Your task to perform on an android device: Show the shopping cart on bestbuy.com. Add dell xps to the cart on bestbuy.com Image 0: 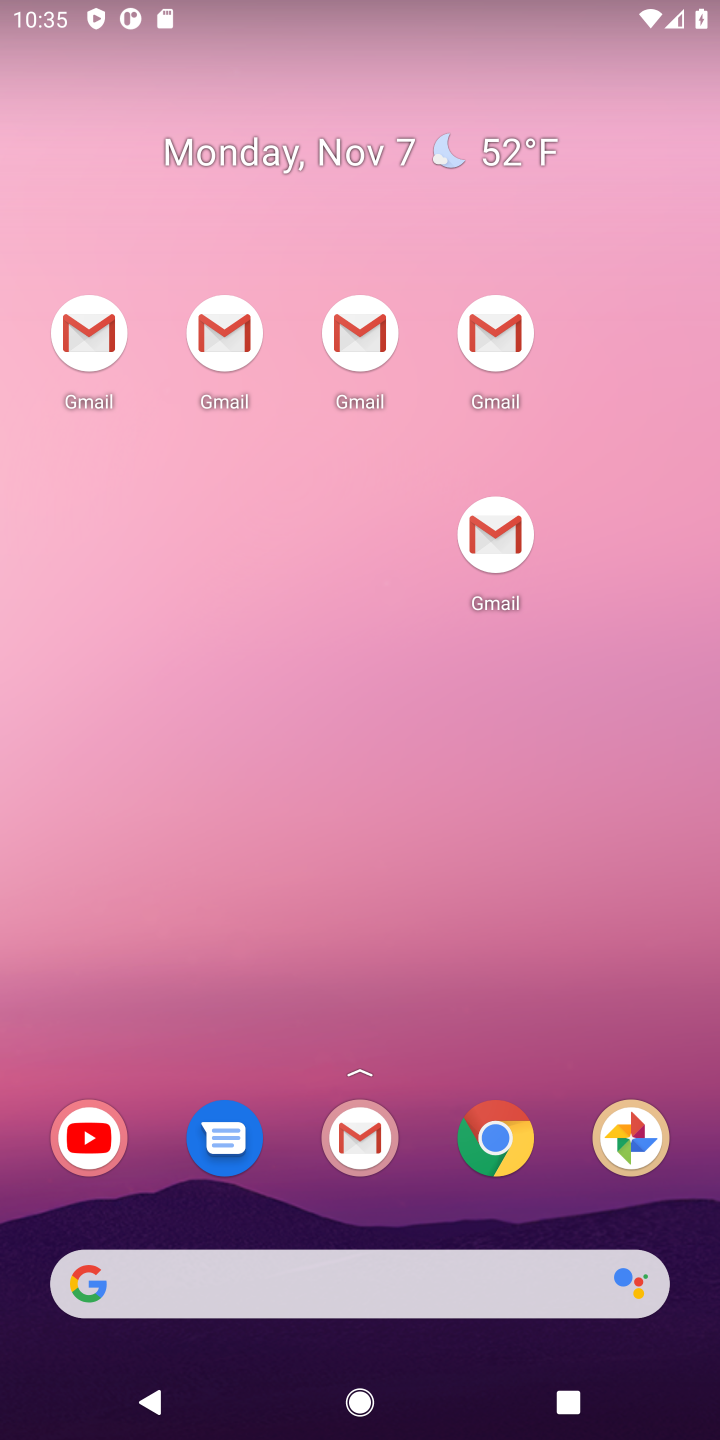
Step 0: drag from (337, 1074) to (330, 220)
Your task to perform on an android device: Show the shopping cart on bestbuy.com. Add dell xps to the cart on bestbuy.com Image 1: 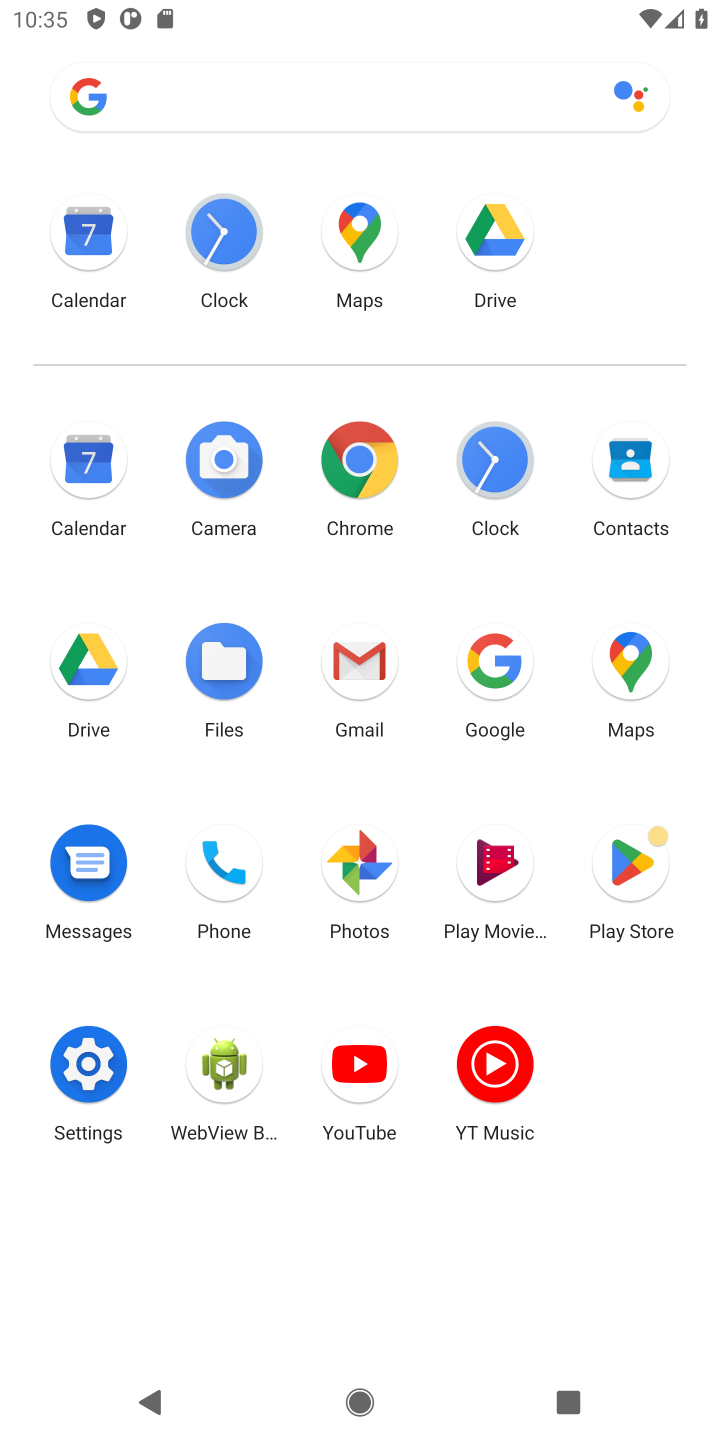
Step 1: click (498, 676)
Your task to perform on an android device: Show the shopping cart on bestbuy.com. Add dell xps to the cart on bestbuy.com Image 2: 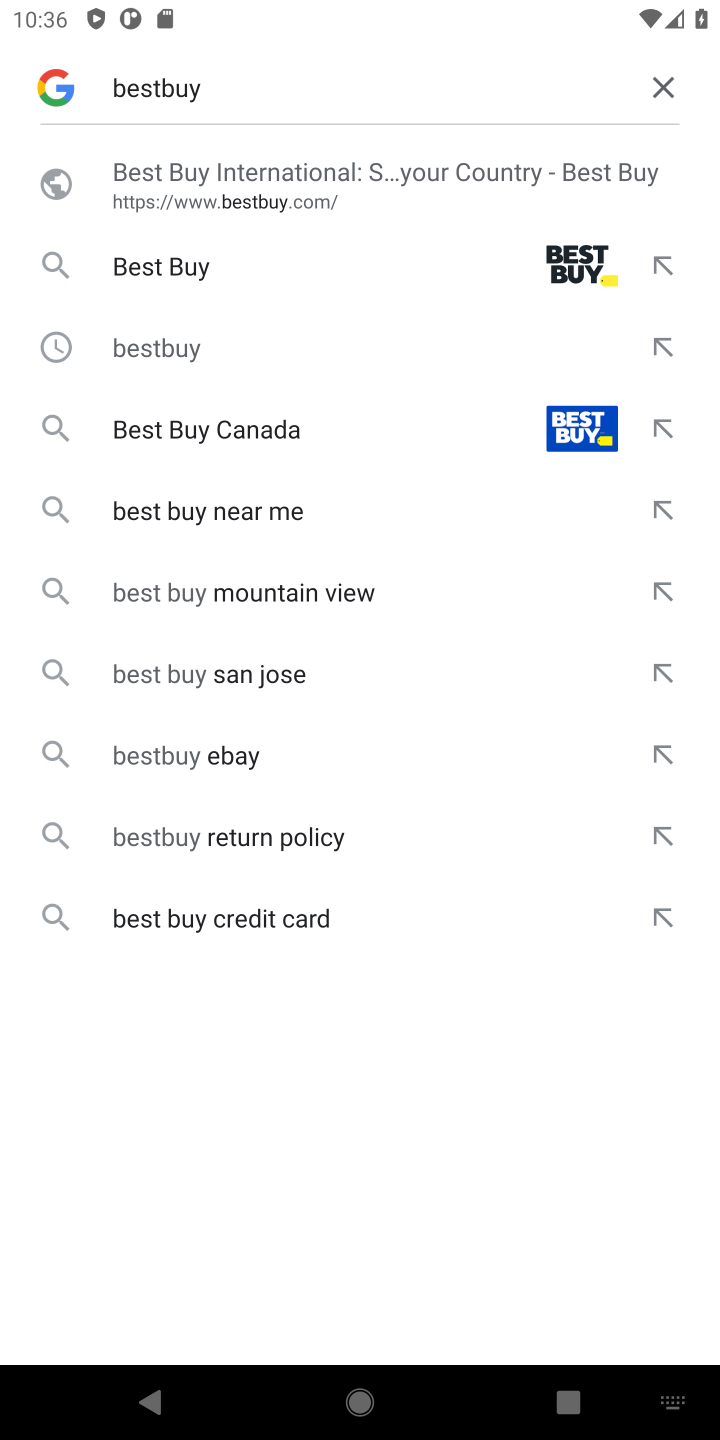
Step 2: click (380, 211)
Your task to perform on an android device: Show the shopping cart on bestbuy.com. Add dell xps to the cart on bestbuy.com Image 3: 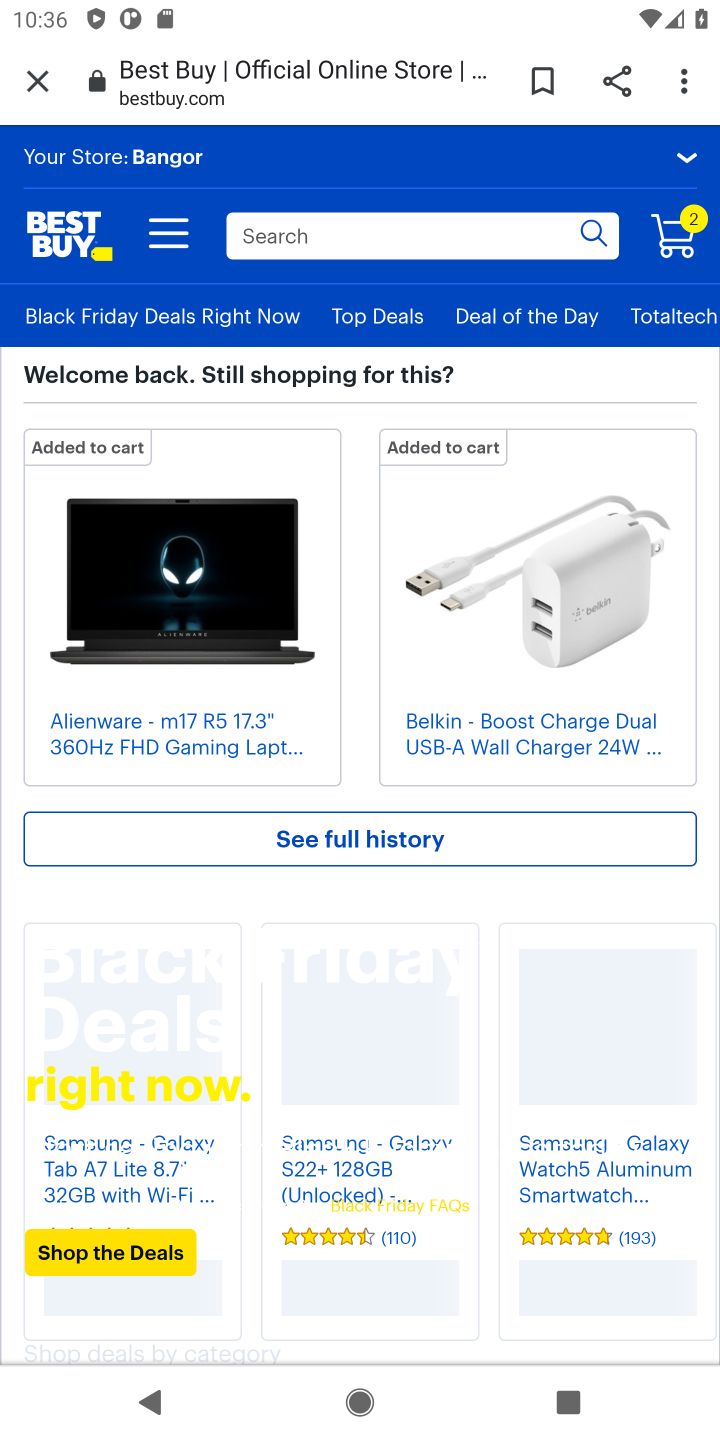
Step 3: click (380, 239)
Your task to perform on an android device: Show the shopping cart on bestbuy.com. Add dell xps to the cart on bestbuy.com Image 4: 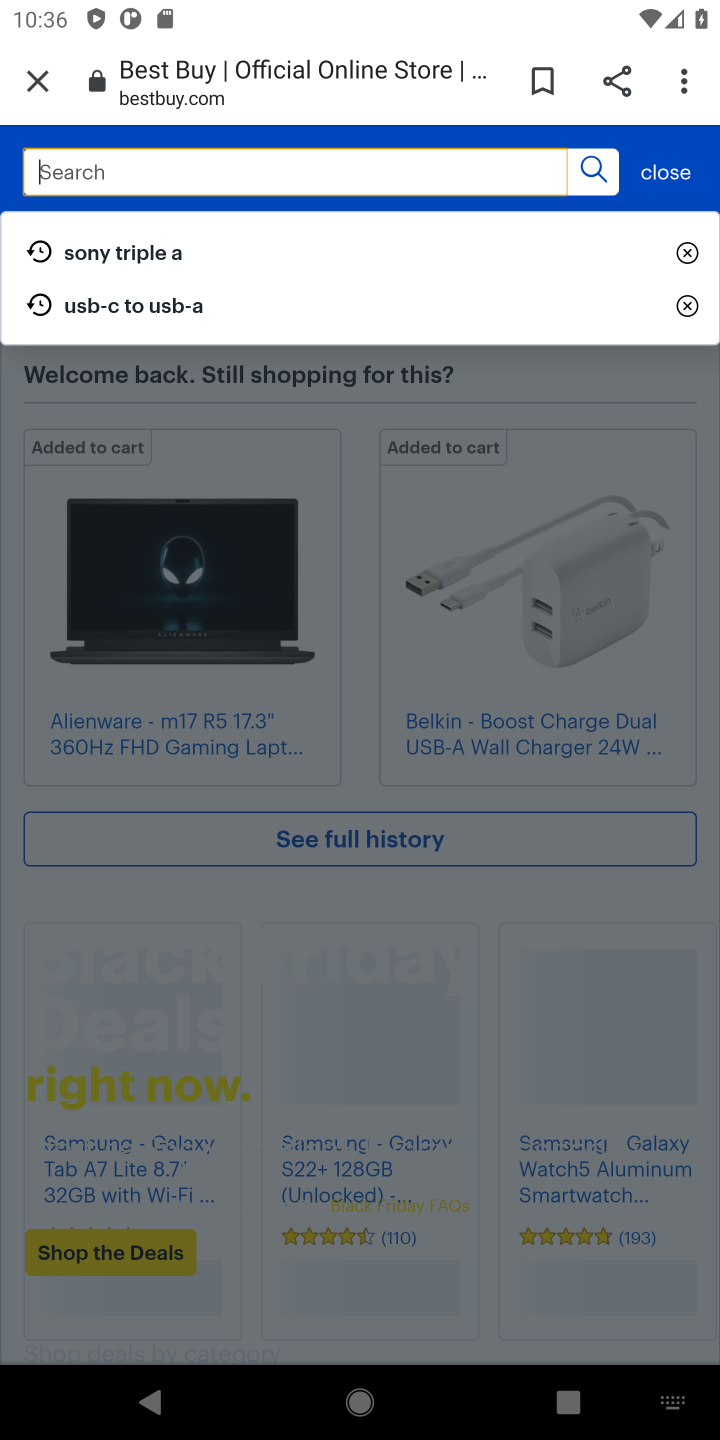
Step 4: type "dell xps"
Your task to perform on an android device: Show the shopping cart on bestbuy.com. Add dell xps to the cart on bestbuy.com Image 5: 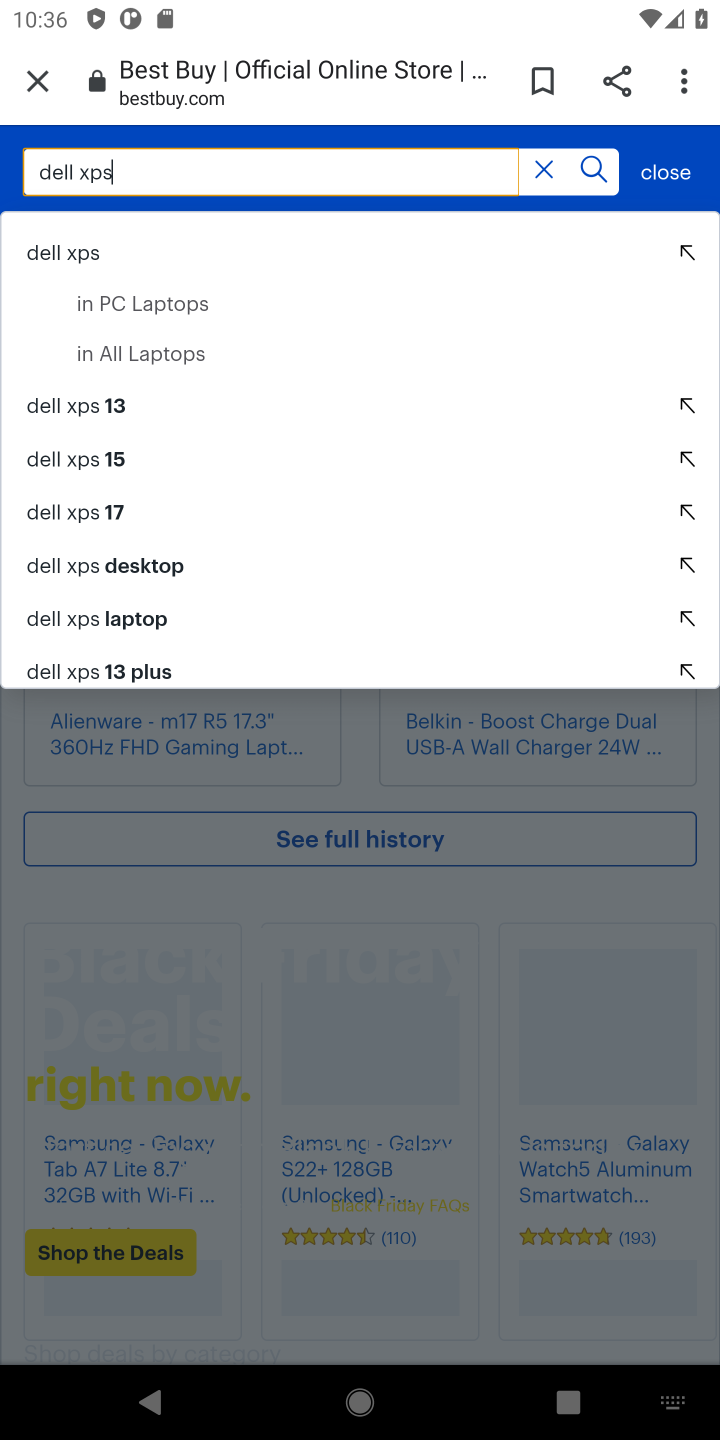
Step 5: click (248, 252)
Your task to perform on an android device: Show the shopping cart on bestbuy.com. Add dell xps to the cart on bestbuy.com Image 6: 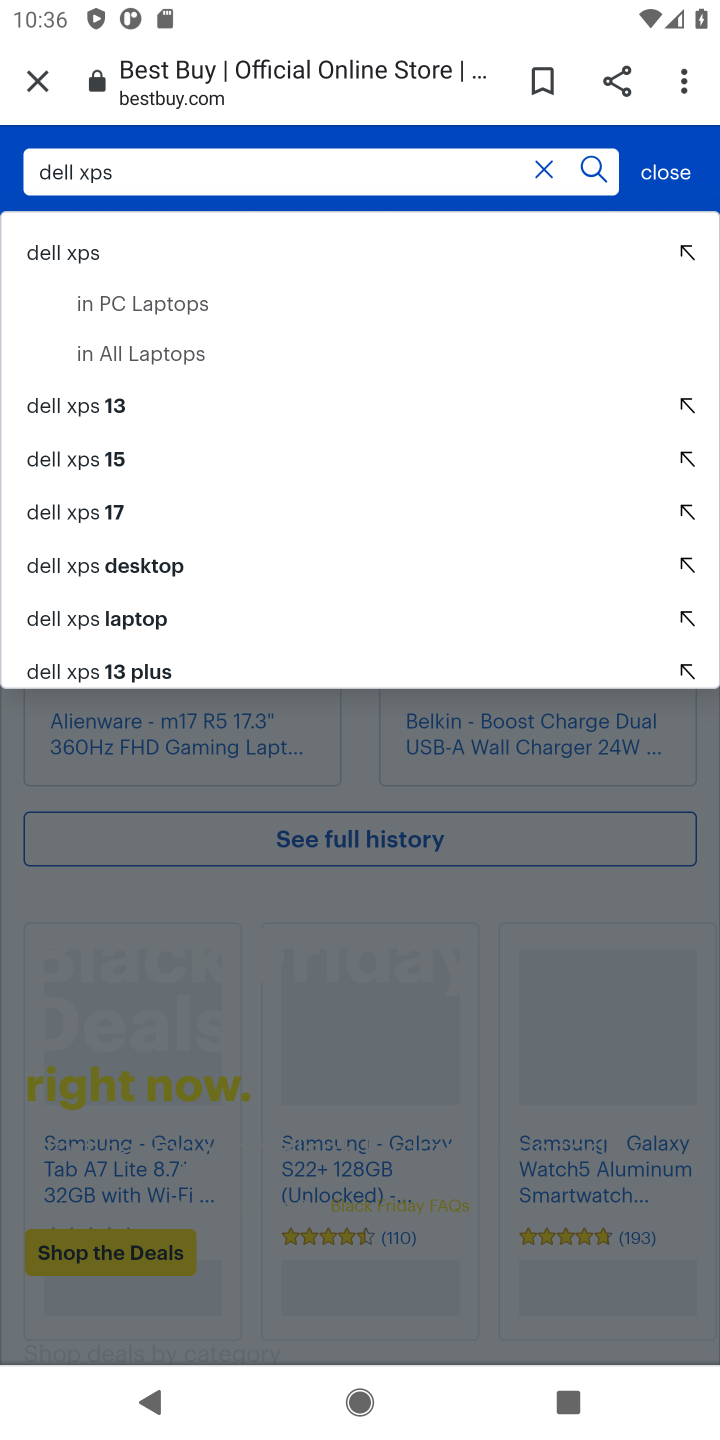
Step 6: click (92, 255)
Your task to perform on an android device: Show the shopping cart on bestbuy.com. Add dell xps to the cart on bestbuy.com Image 7: 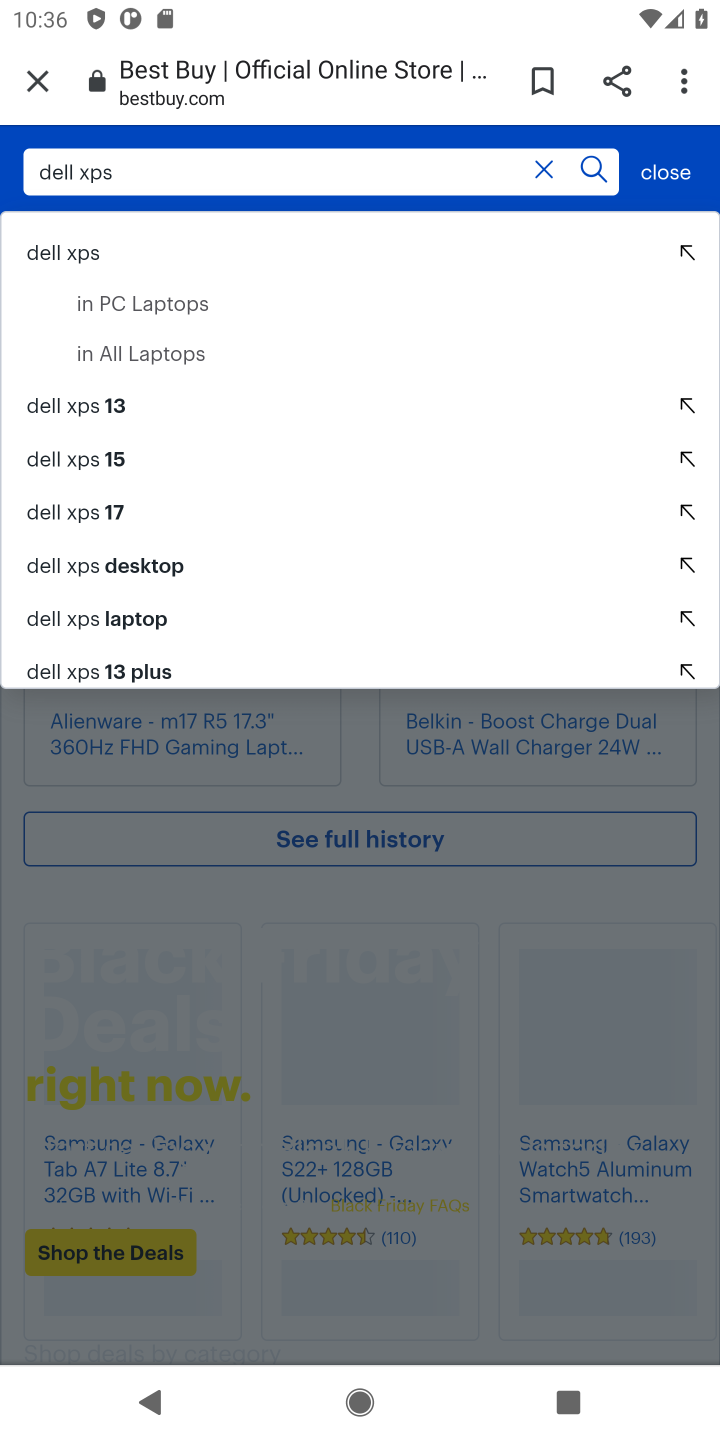
Step 7: click (104, 265)
Your task to perform on an android device: Show the shopping cart on bestbuy.com. Add dell xps to the cart on bestbuy.com Image 8: 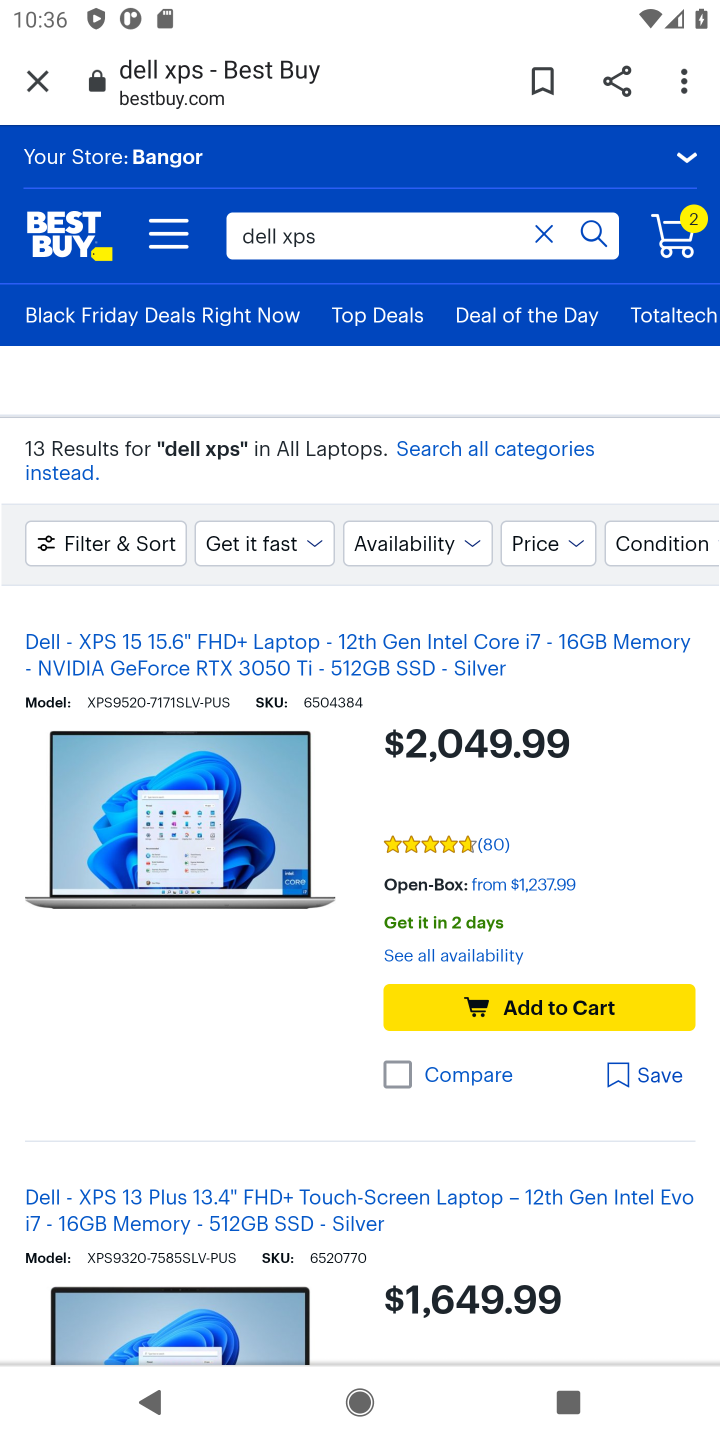
Step 8: click (410, 651)
Your task to perform on an android device: Show the shopping cart on bestbuy.com. Add dell xps to the cart on bestbuy.com Image 9: 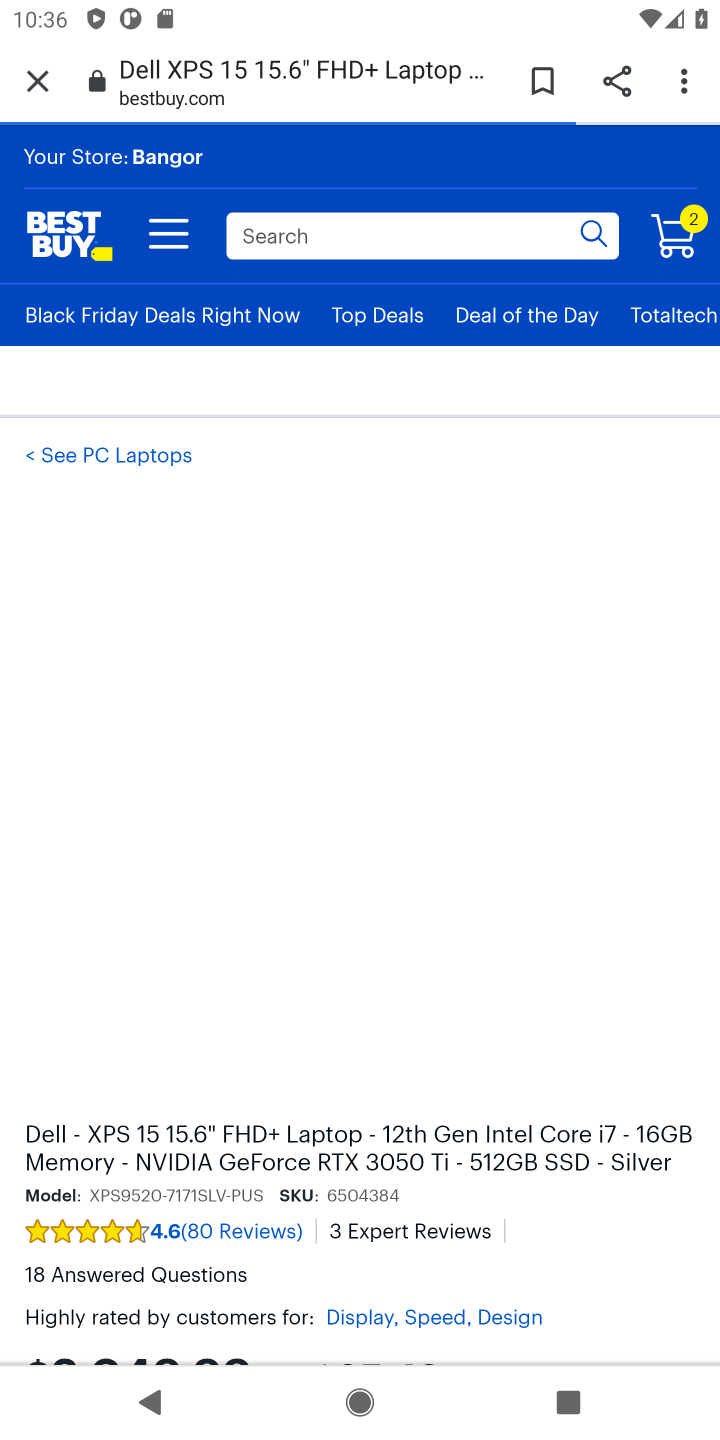
Step 9: drag from (433, 988) to (375, 8)
Your task to perform on an android device: Show the shopping cart on bestbuy.com. Add dell xps to the cart on bestbuy.com Image 10: 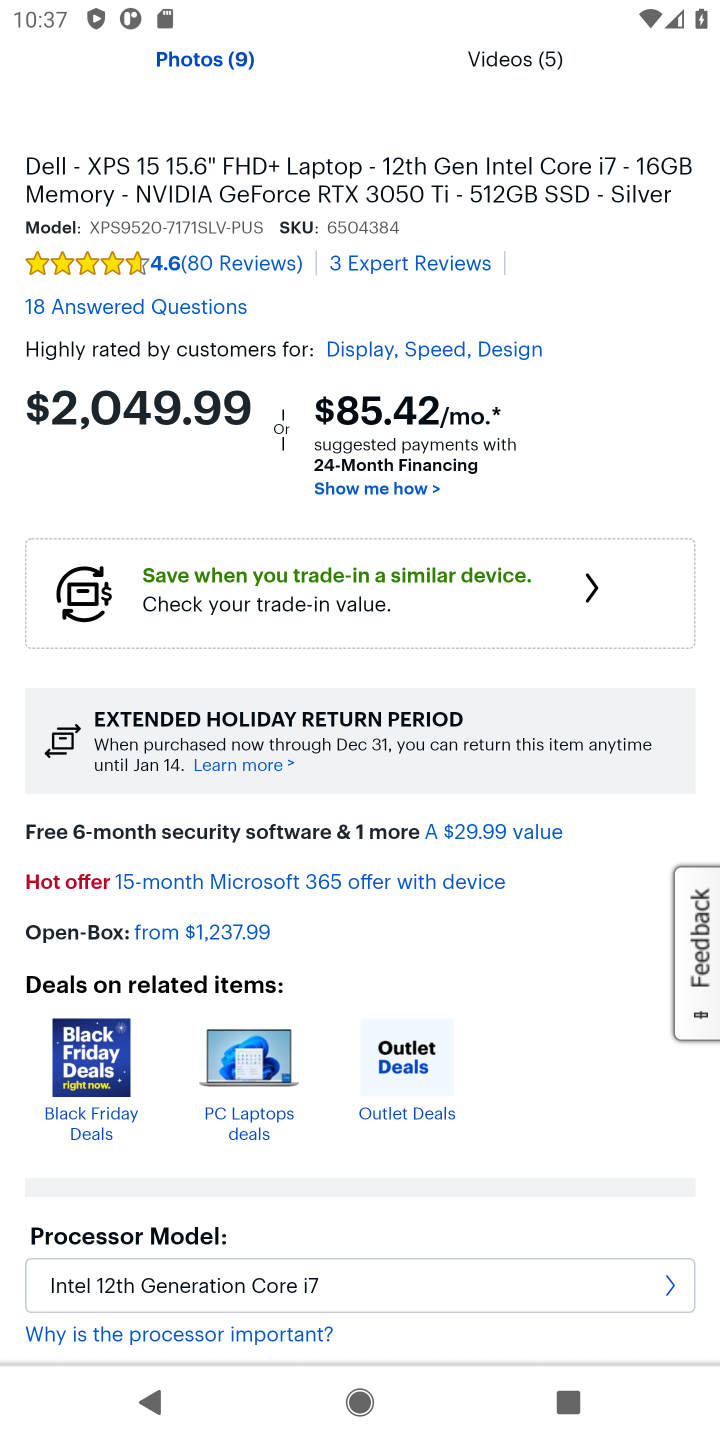
Step 10: drag from (461, 1080) to (459, 390)
Your task to perform on an android device: Show the shopping cart on bestbuy.com. Add dell xps to the cart on bestbuy.com Image 11: 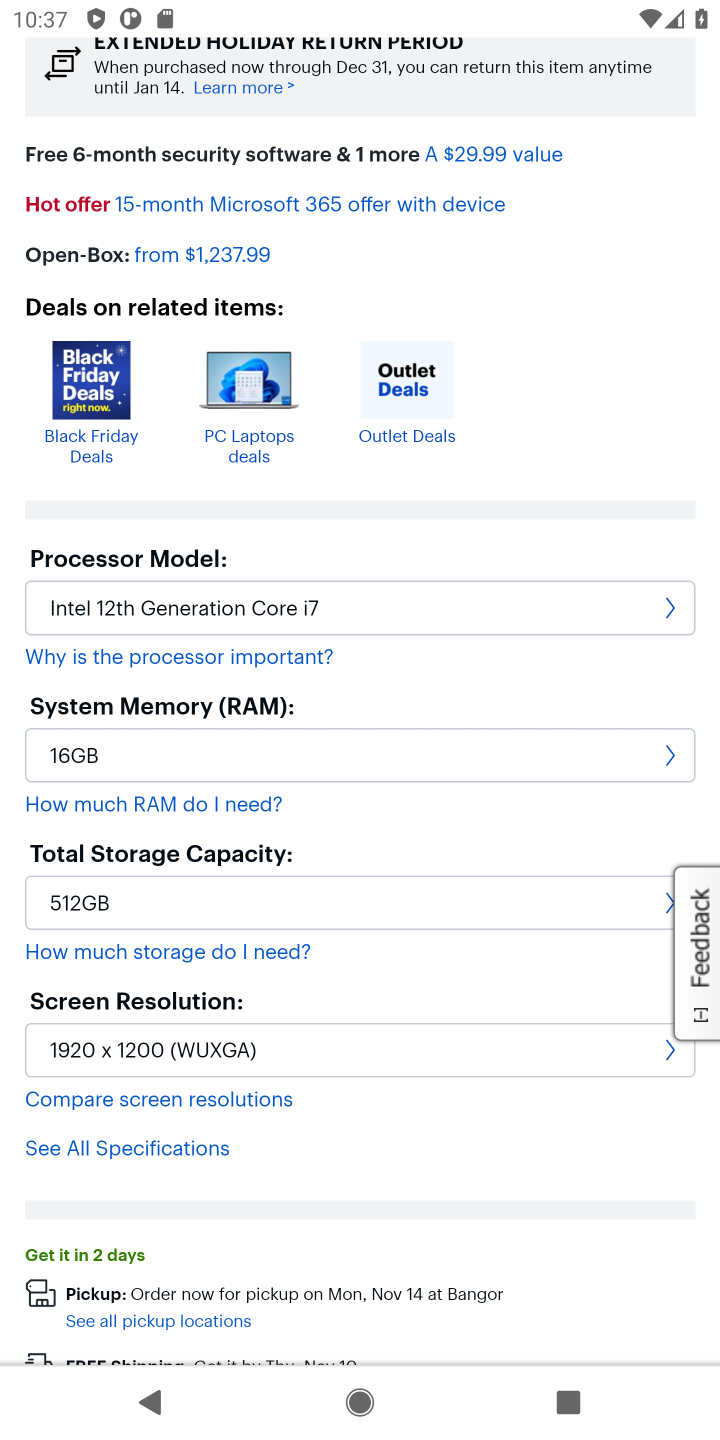
Step 11: drag from (441, 950) to (483, 457)
Your task to perform on an android device: Show the shopping cart on bestbuy.com. Add dell xps to the cart on bestbuy.com Image 12: 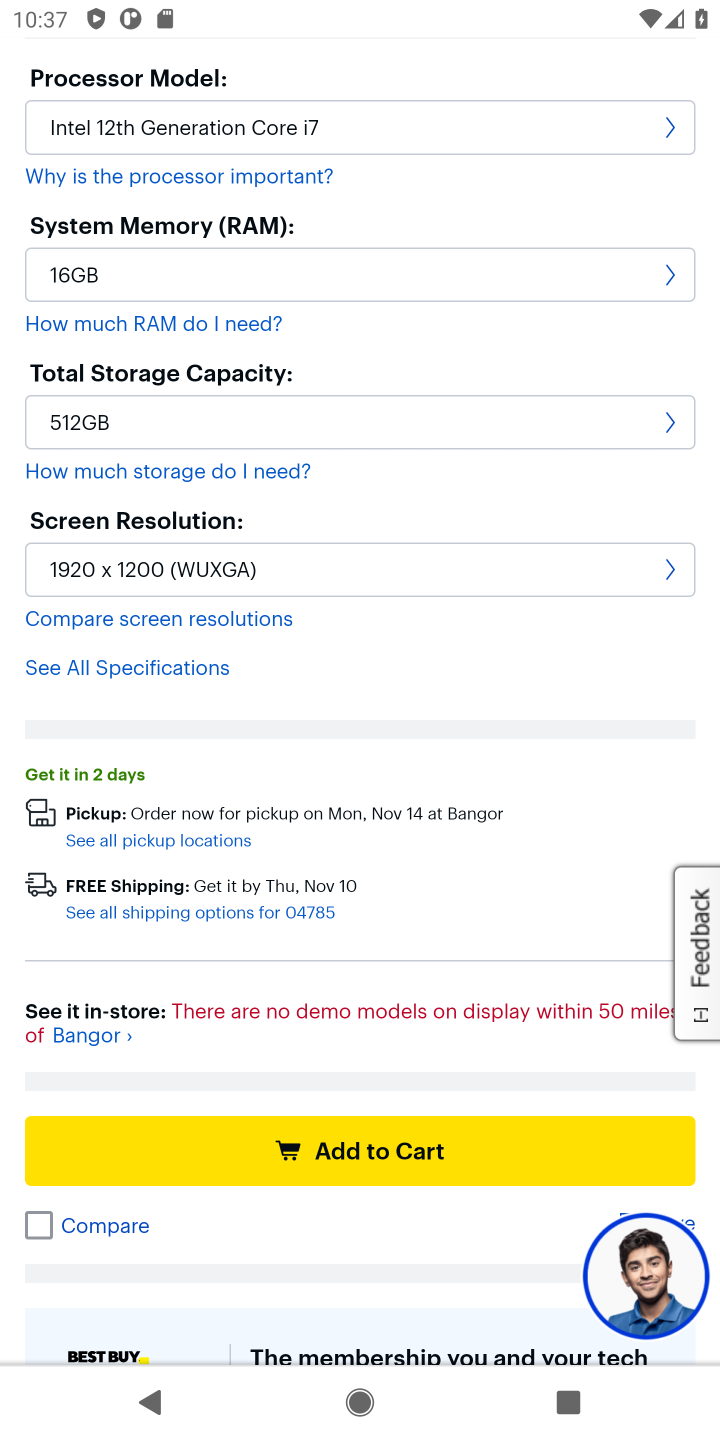
Step 12: drag from (480, 723) to (532, 411)
Your task to perform on an android device: Show the shopping cart on bestbuy.com. Add dell xps to the cart on bestbuy.com Image 13: 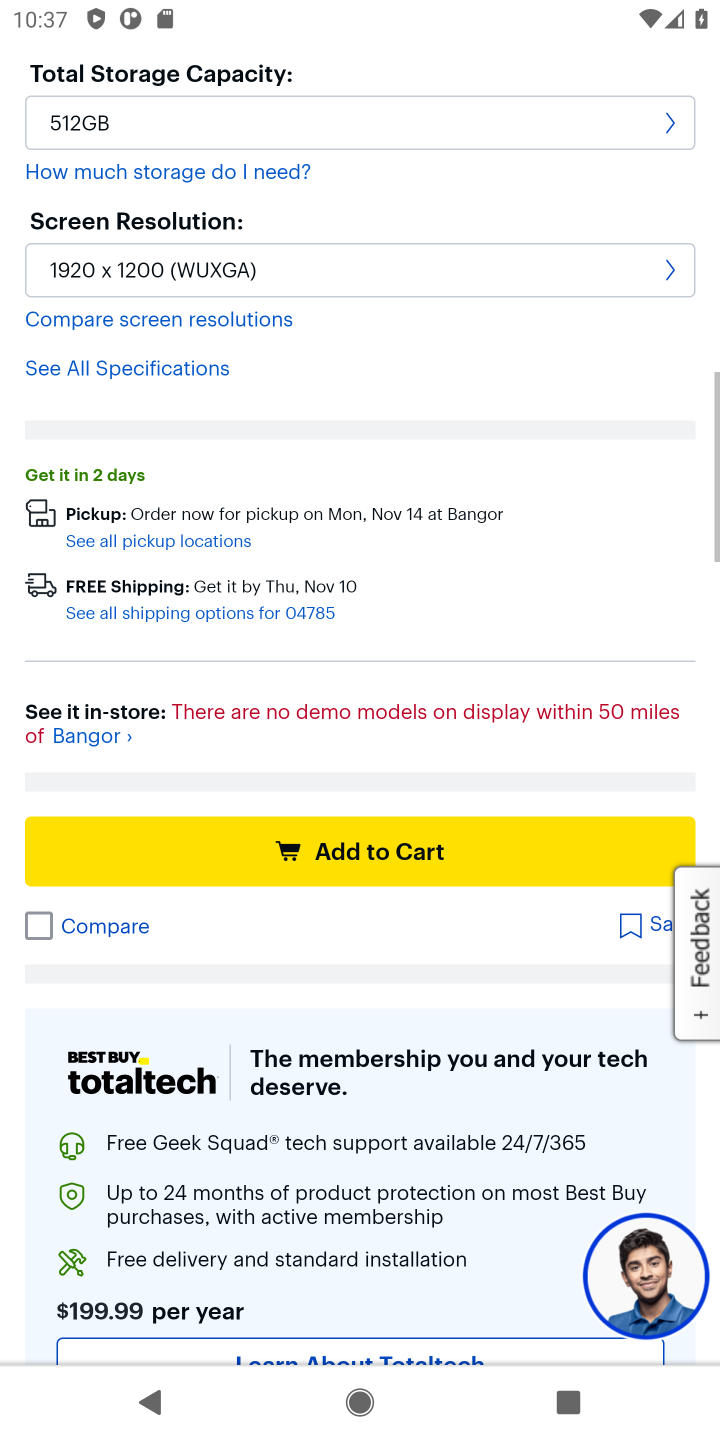
Step 13: click (473, 1170)
Your task to perform on an android device: Show the shopping cart on bestbuy.com. Add dell xps to the cart on bestbuy.com Image 14: 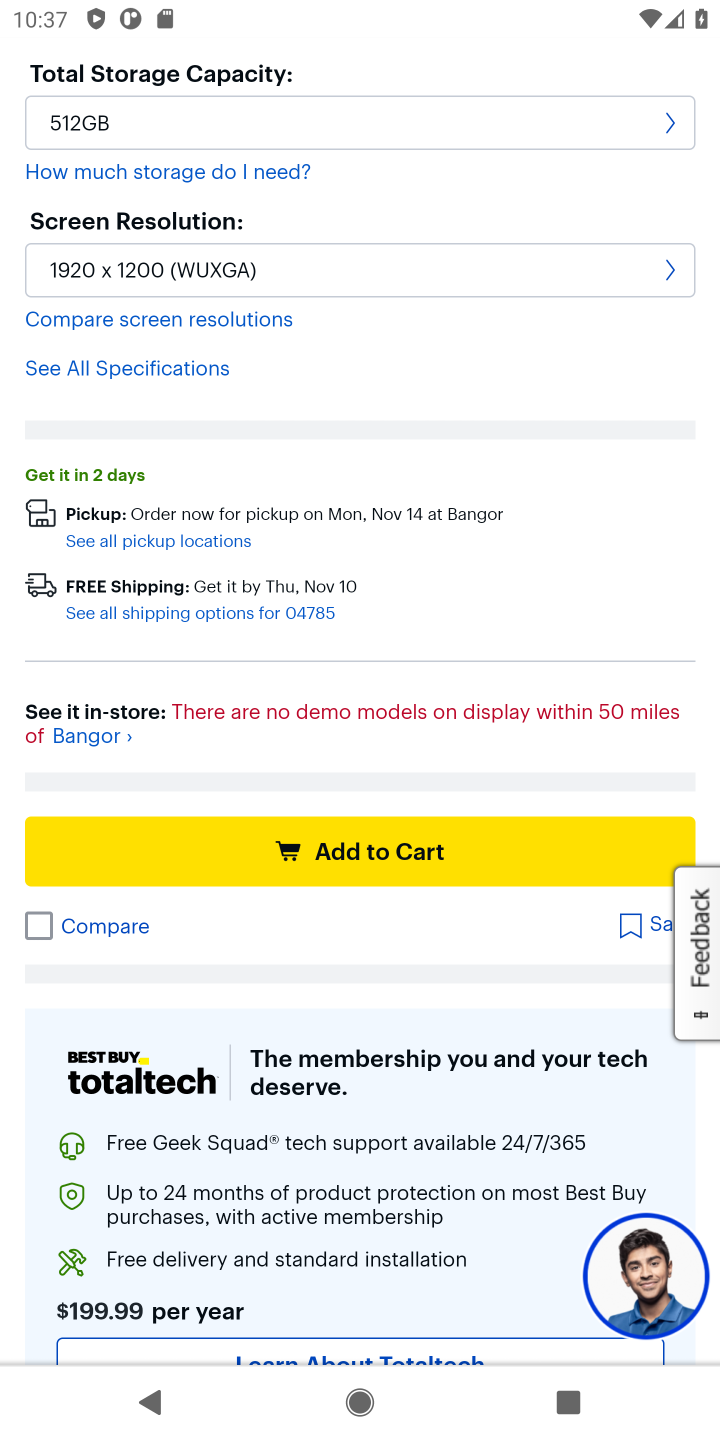
Step 14: click (451, 866)
Your task to perform on an android device: Show the shopping cart on bestbuy.com. Add dell xps to the cart on bestbuy.com Image 15: 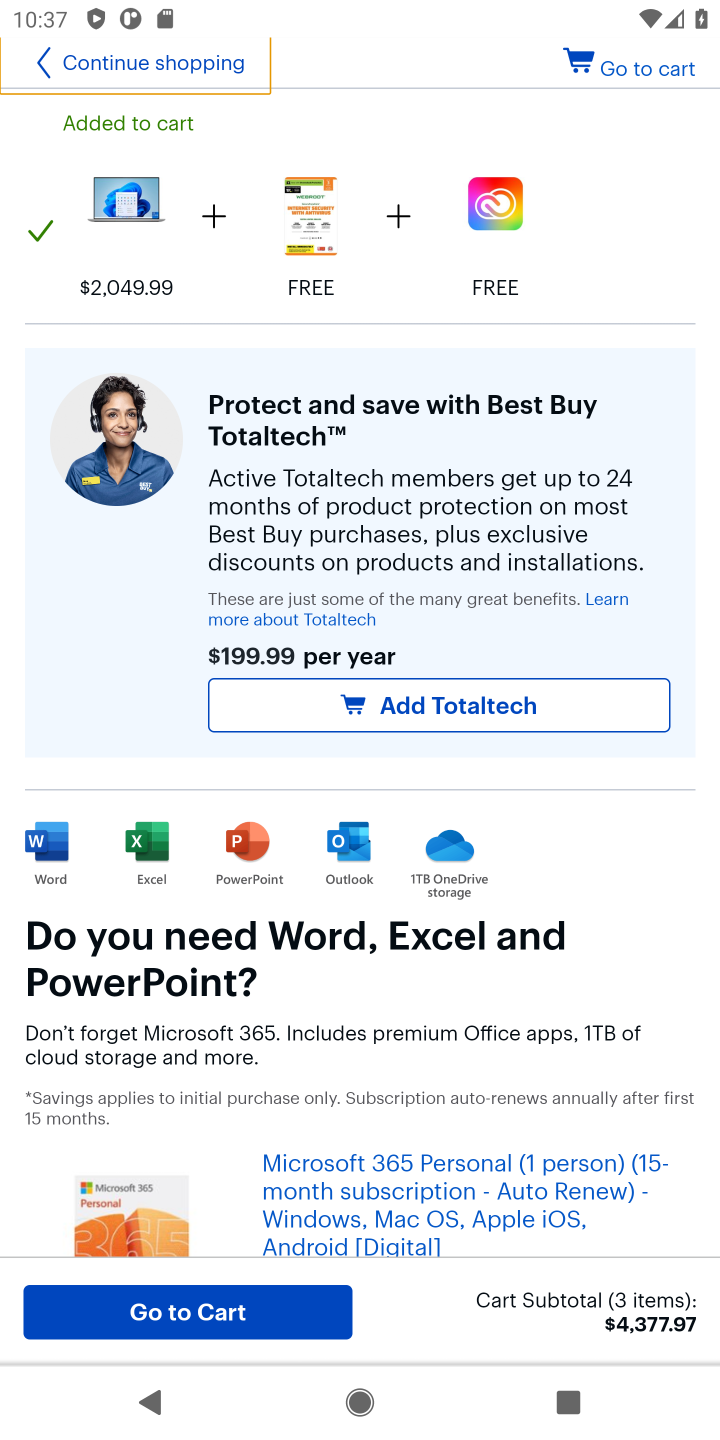
Step 15: task complete